Your task to perform on an android device: check google app version Image 0: 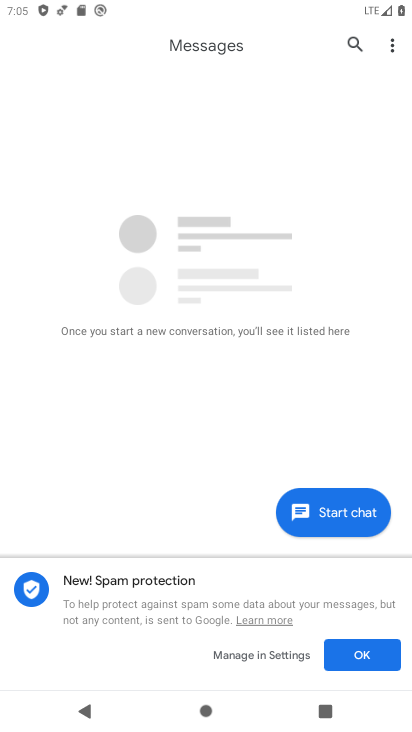
Step 0: press home button
Your task to perform on an android device: check google app version Image 1: 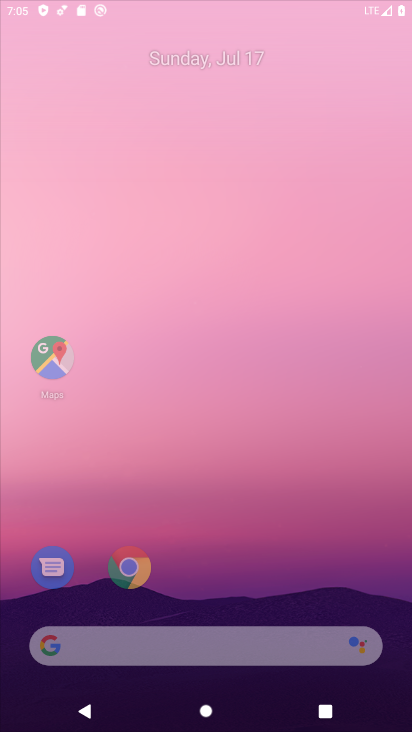
Step 1: drag from (402, 670) to (251, 0)
Your task to perform on an android device: check google app version Image 2: 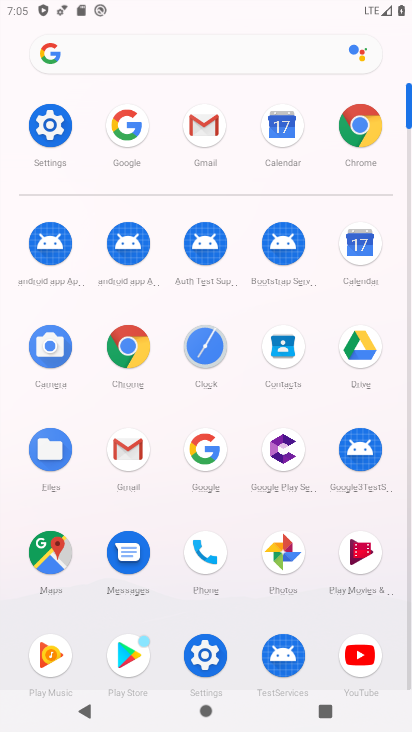
Step 2: click (214, 460)
Your task to perform on an android device: check google app version Image 3: 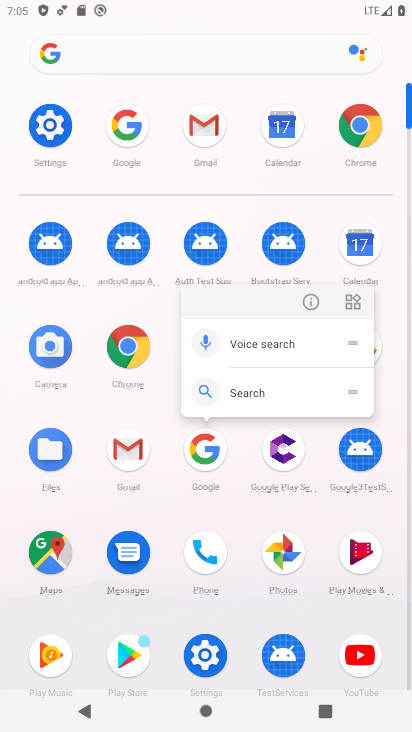
Step 3: click (307, 298)
Your task to perform on an android device: check google app version Image 4: 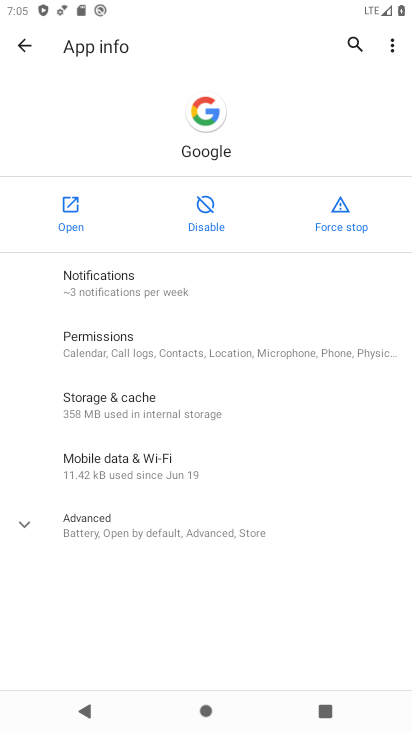
Step 4: click (115, 525)
Your task to perform on an android device: check google app version Image 5: 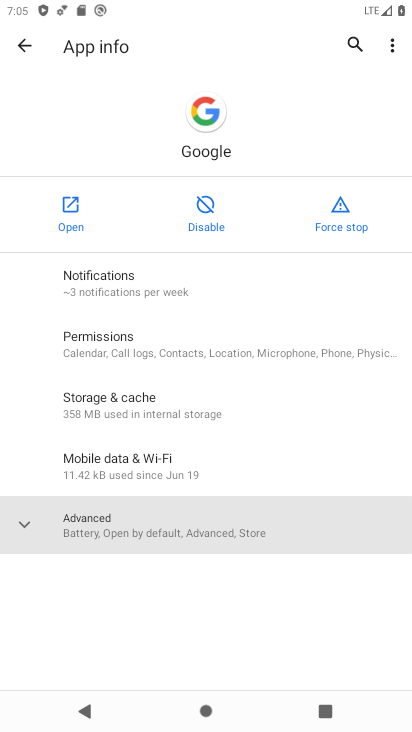
Step 5: task complete